Your task to perform on an android device: See recent photos Image 0: 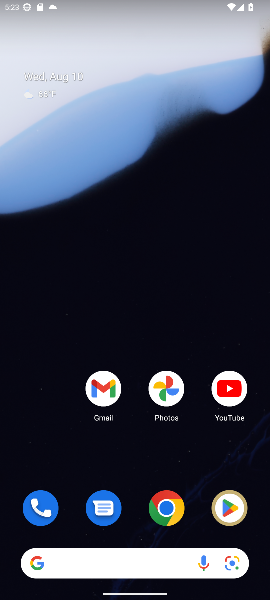
Step 0: press home button
Your task to perform on an android device: See recent photos Image 1: 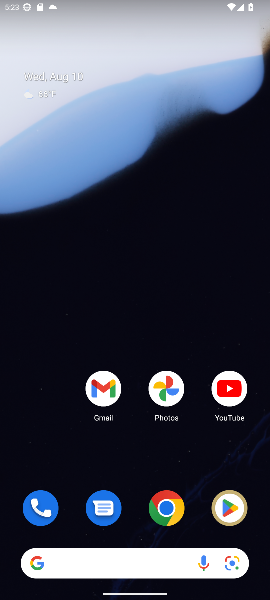
Step 1: drag from (47, 453) to (211, 15)
Your task to perform on an android device: See recent photos Image 2: 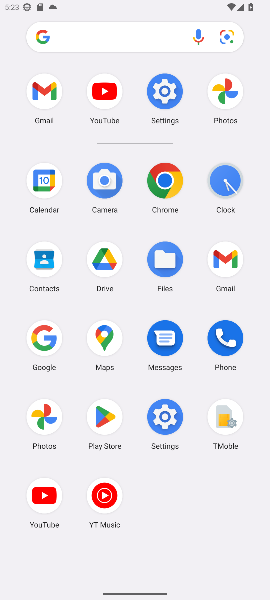
Step 2: click (44, 418)
Your task to perform on an android device: See recent photos Image 3: 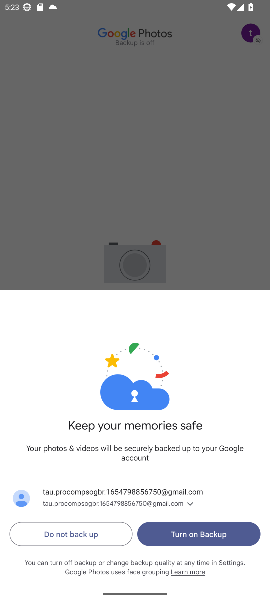
Step 3: click (191, 531)
Your task to perform on an android device: See recent photos Image 4: 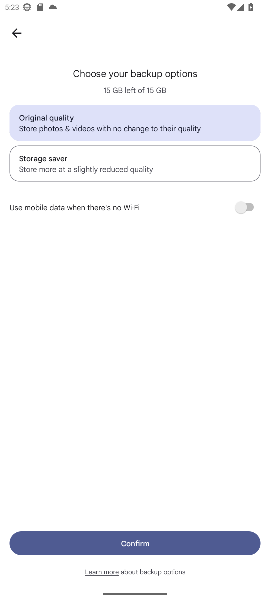
Step 4: click (155, 543)
Your task to perform on an android device: See recent photos Image 5: 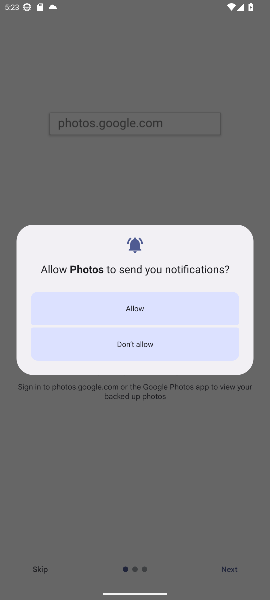
Step 5: click (137, 302)
Your task to perform on an android device: See recent photos Image 6: 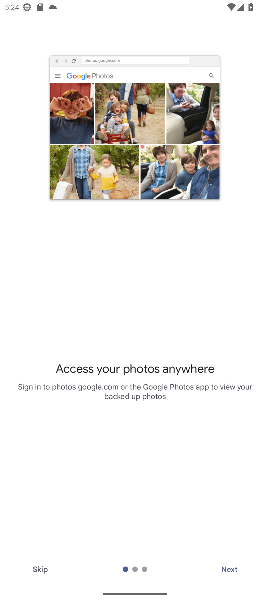
Step 6: click (226, 569)
Your task to perform on an android device: See recent photos Image 7: 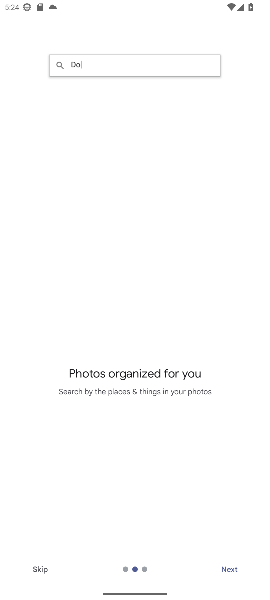
Step 7: click (224, 568)
Your task to perform on an android device: See recent photos Image 8: 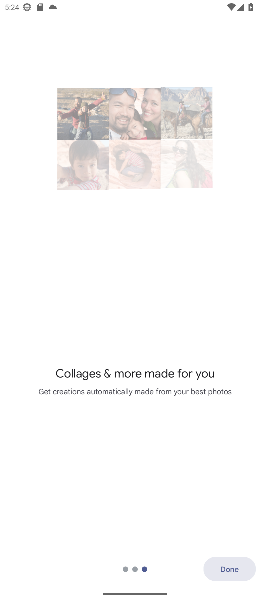
Step 8: click (224, 568)
Your task to perform on an android device: See recent photos Image 9: 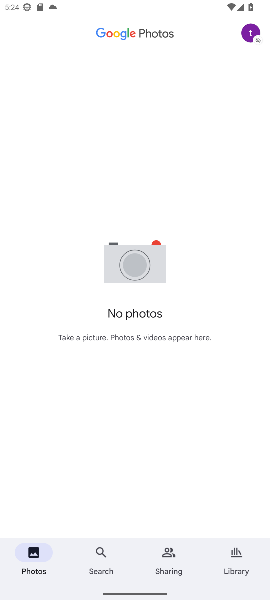
Step 9: click (224, 568)
Your task to perform on an android device: See recent photos Image 10: 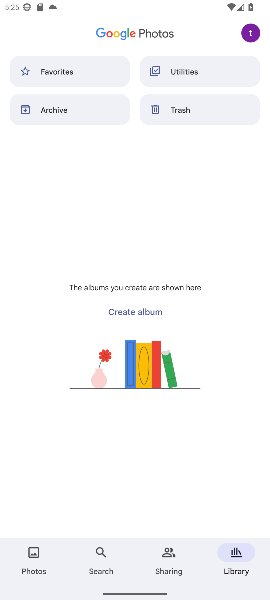
Step 10: task complete